Your task to perform on an android device: turn on translation in the chrome app Image 0: 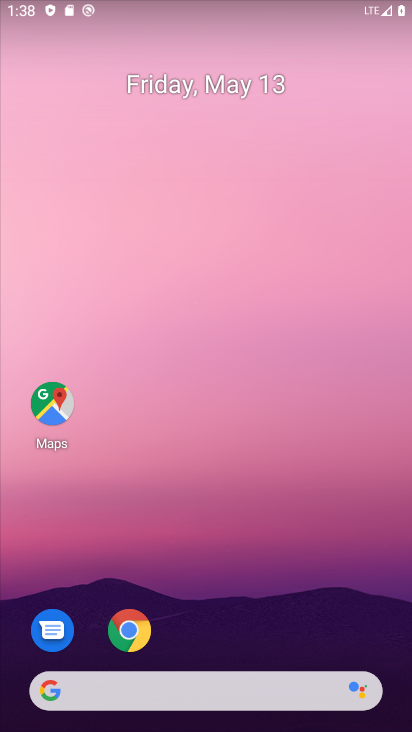
Step 0: click (139, 629)
Your task to perform on an android device: turn on translation in the chrome app Image 1: 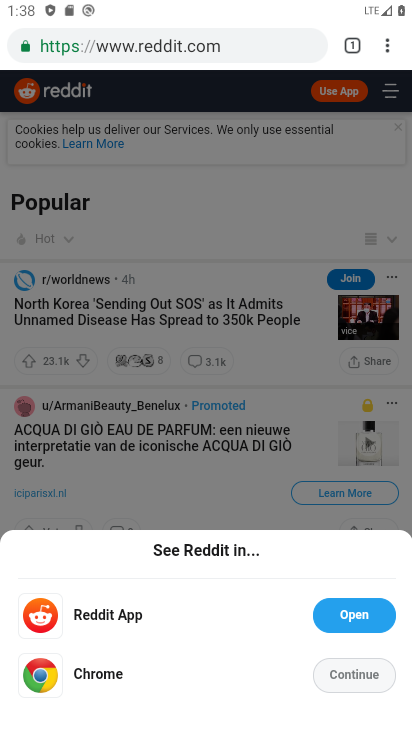
Step 1: drag from (387, 40) to (242, 545)
Your task to perform on an android device: turn on translation in the chrome app Image 2: 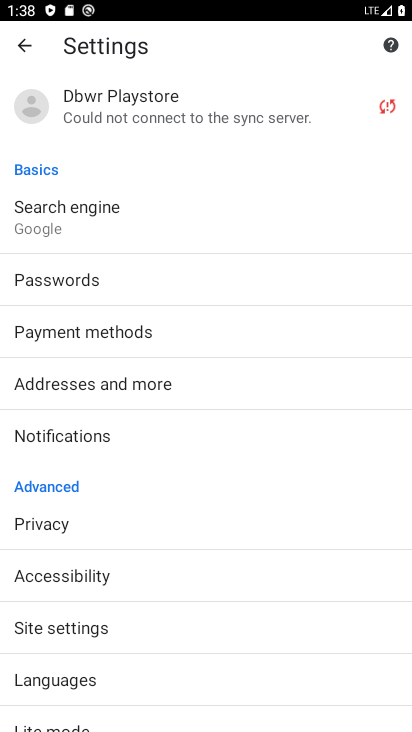
Step 2: drag from (176, 511) to (235, 330)
Your task to perform on an android device: turn on translation in the chrome app Image 3: 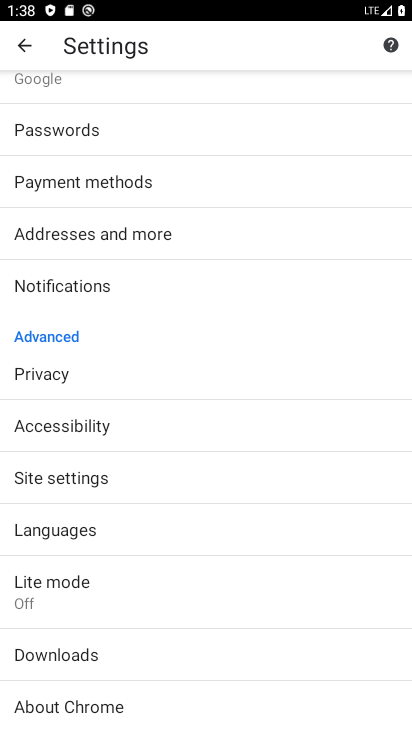
Step 3: click (72, 532)
Your task to perform on an android device: turn on translation in the chrome app Image 4: 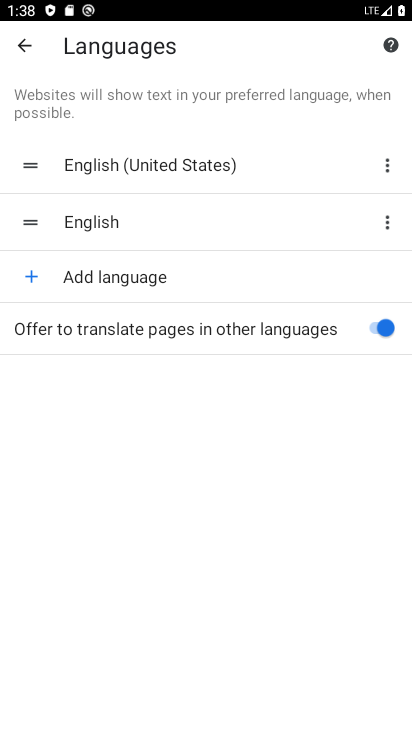
Step 4: task complete